Your task to perform on an android device: Open the Play Movies app and select the watchlist tab. Image 0: 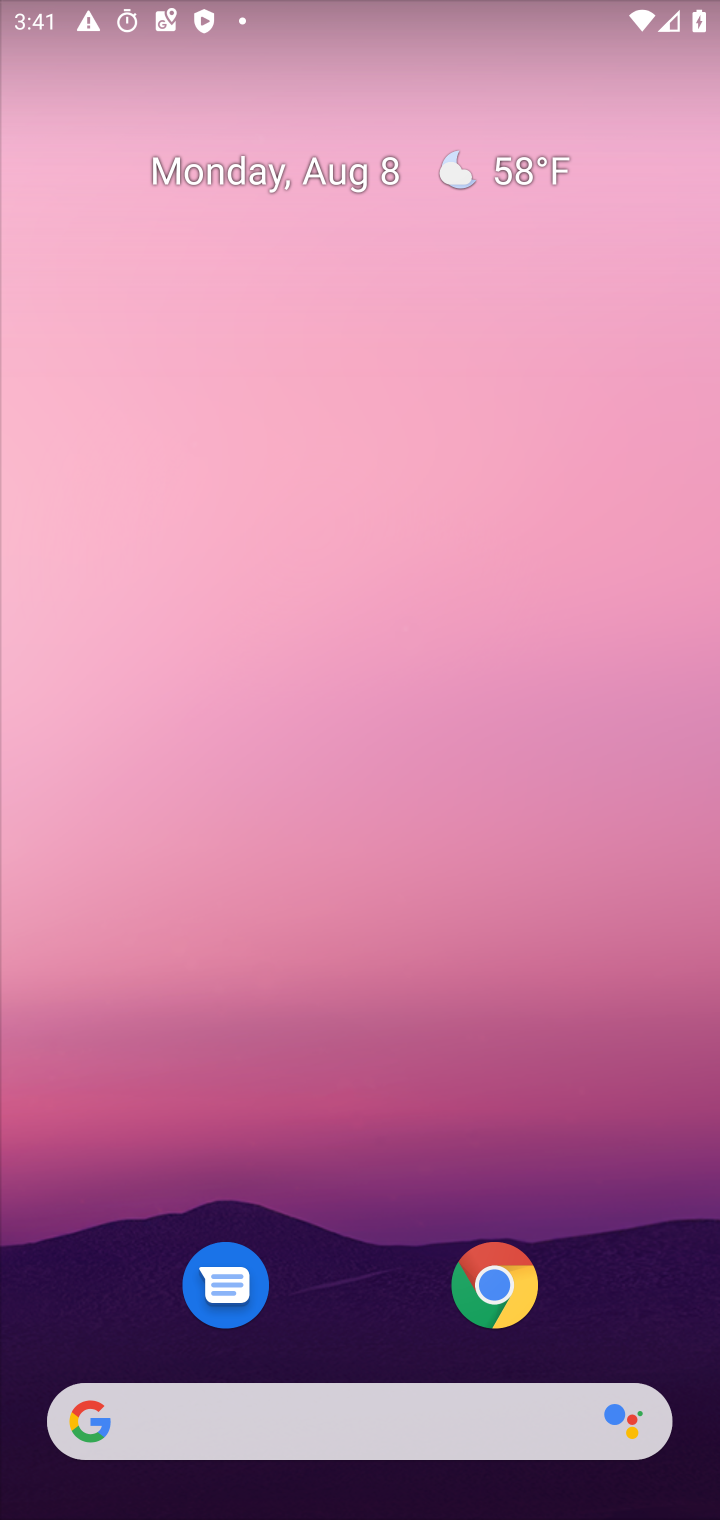
Step 0: drag from (367, 1296) to (368, 16)
Your task to perform on an android device: Open the Play Movies app and select the watchlist tab. Image 1: 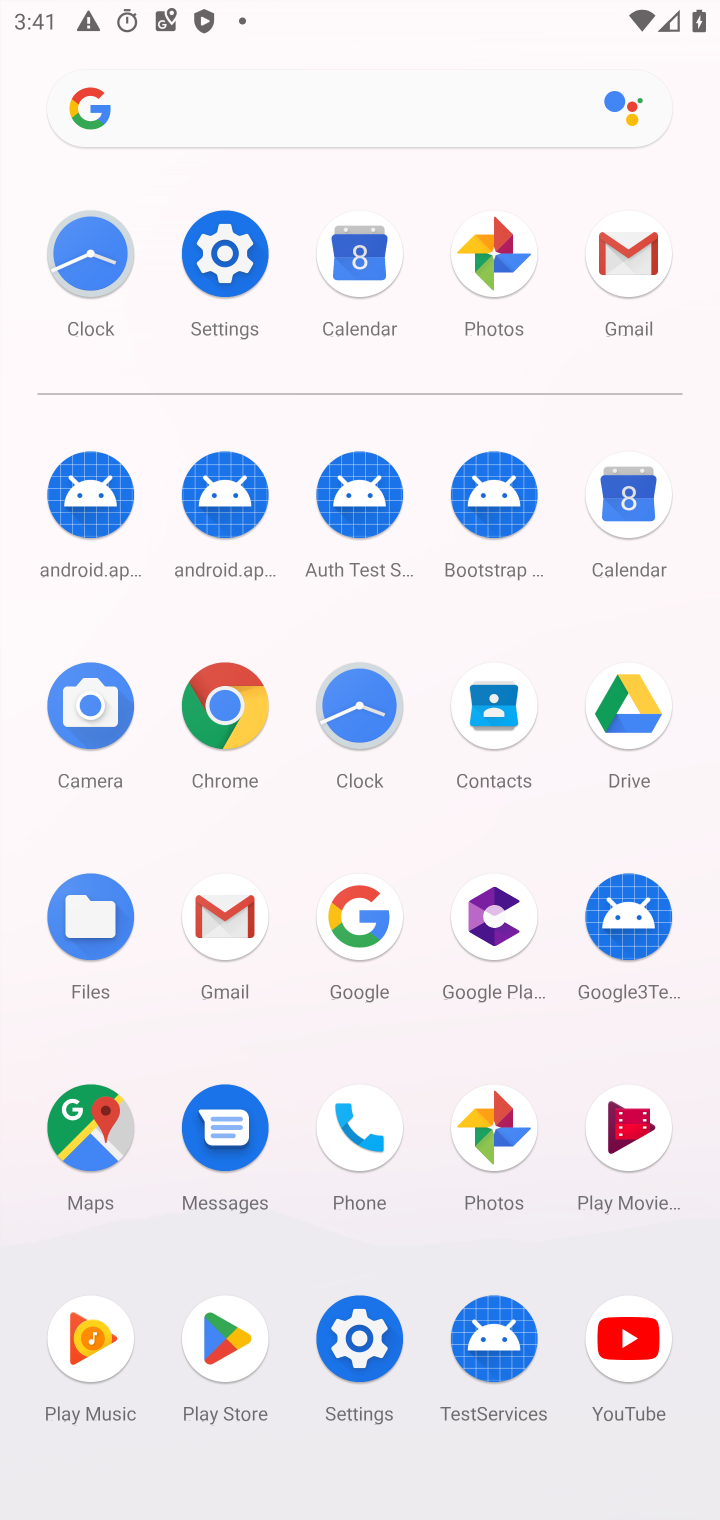
Step 1: click (614, 1136)
Your task to perform on an android device: Open the Play Movies app and select the watchlist tab. Image 2: 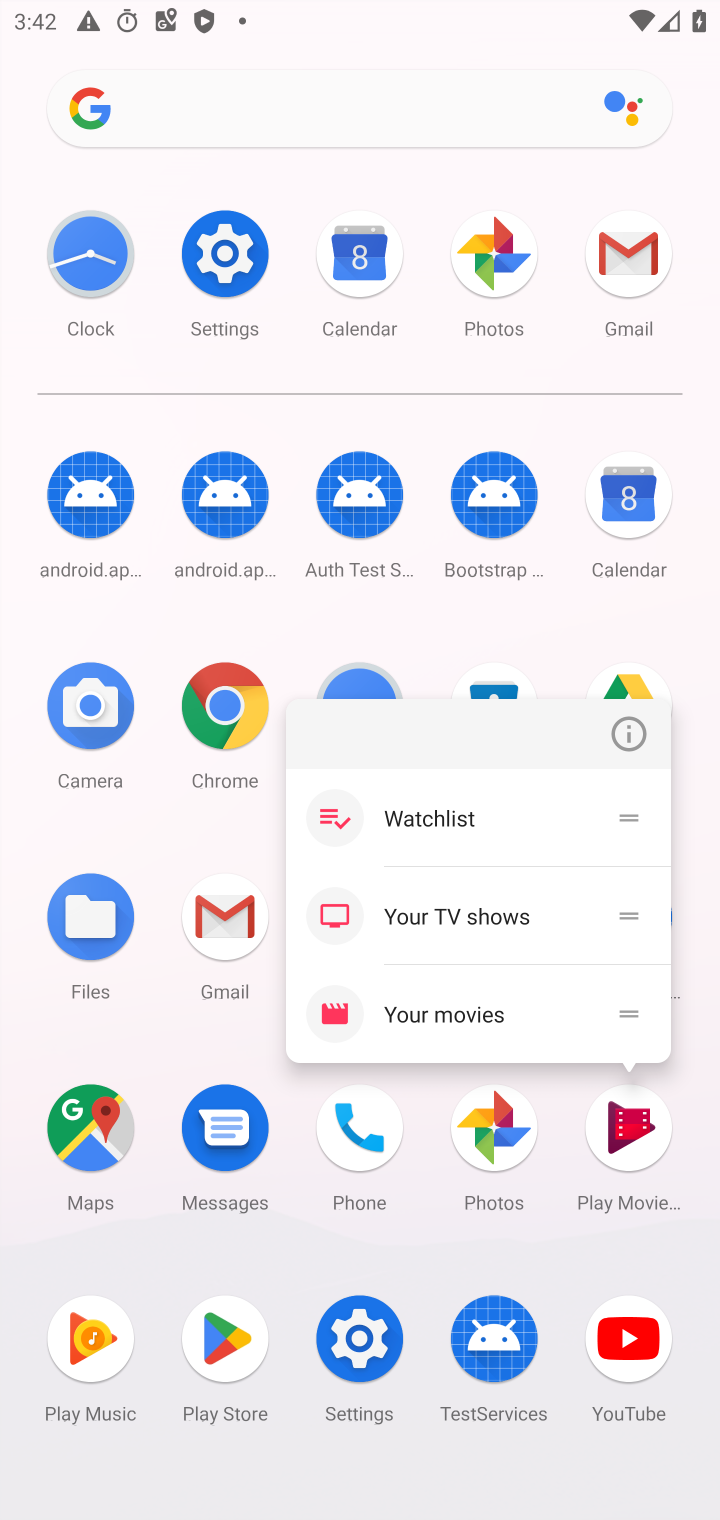
Step 2: click (614, 1136)
Your task to perform on an android device: Open the Play Movies app and select the watchlist tab. Image 3: 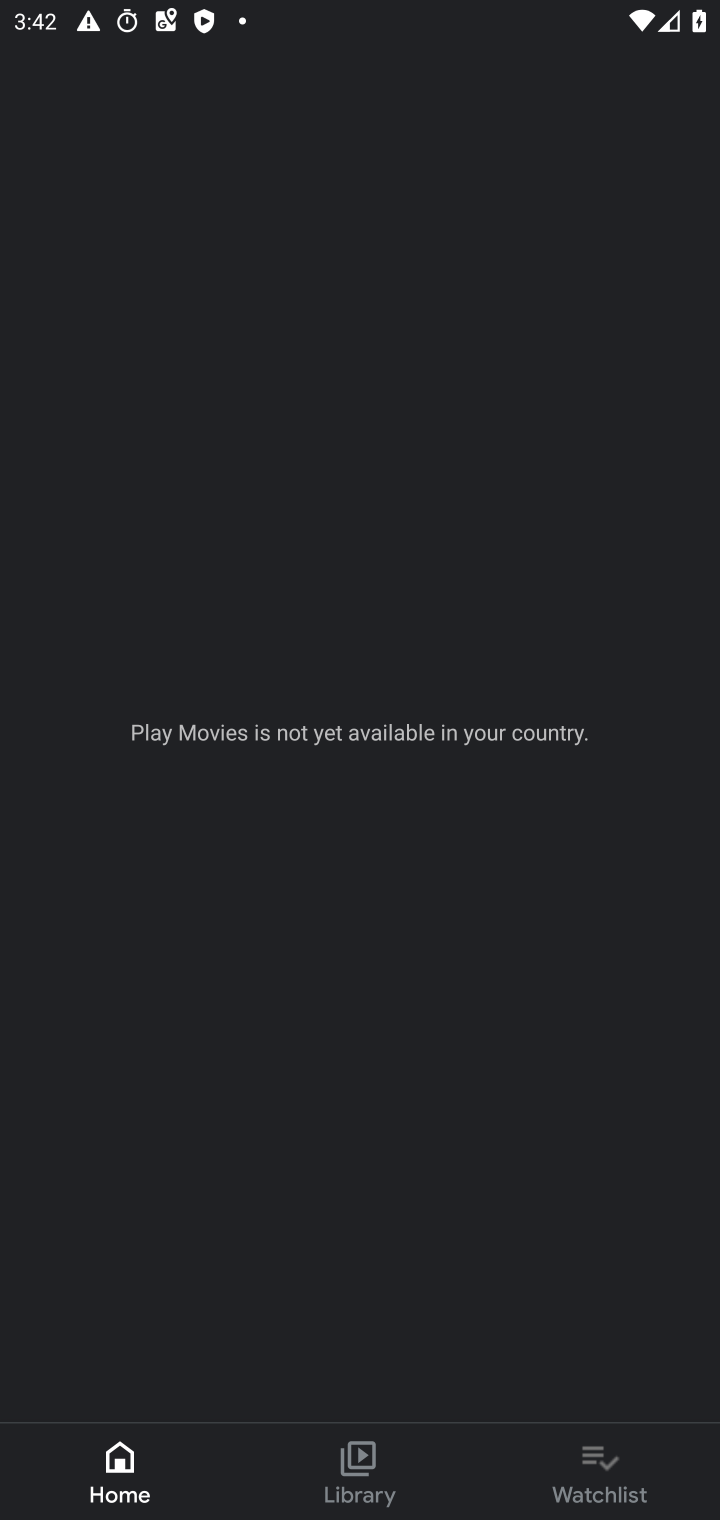
Step 3: click (574, 1495)
Your task to perform on an android device: Open the Play Movies app and select the watchlist tab. Image 4: 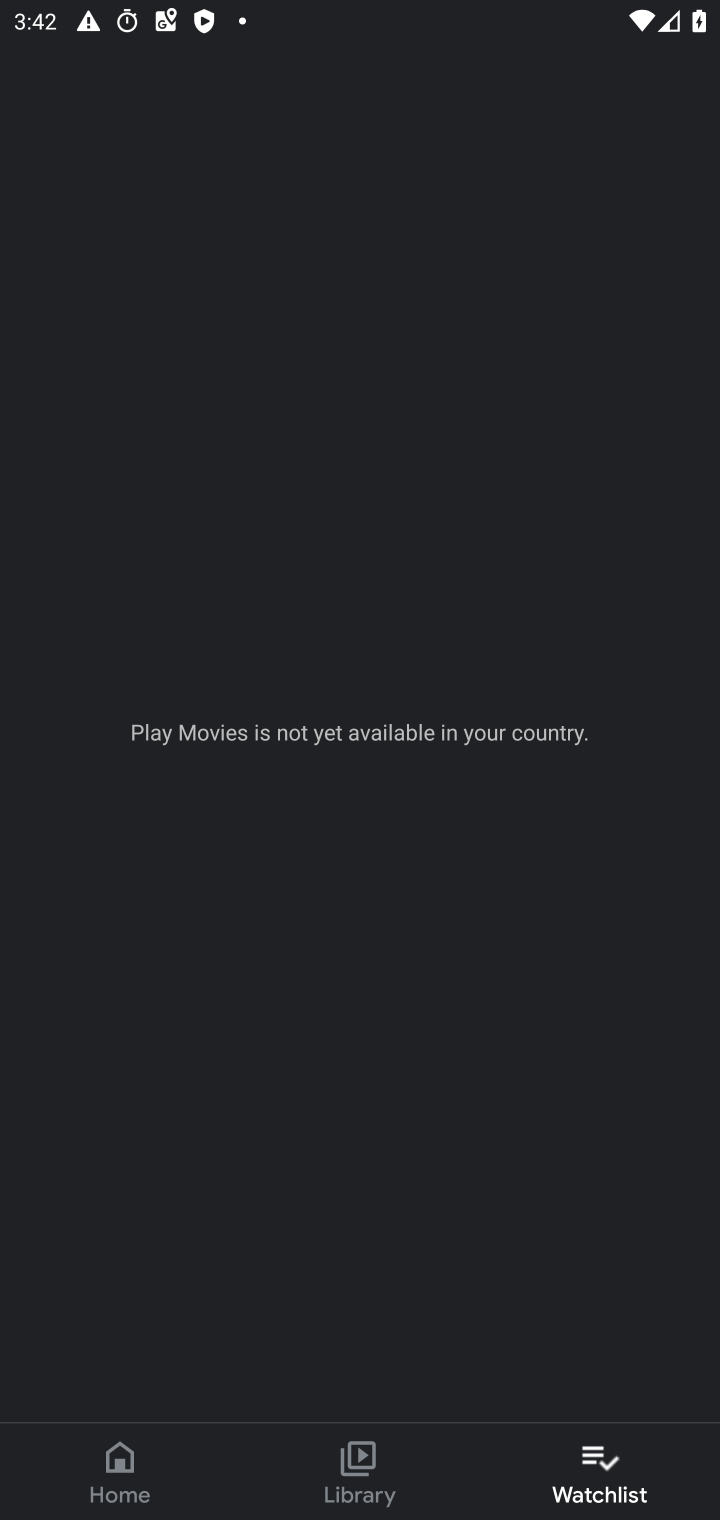
Step 4: task complete